Your task to perform on an android device: Go to Wikipedia Image 0: 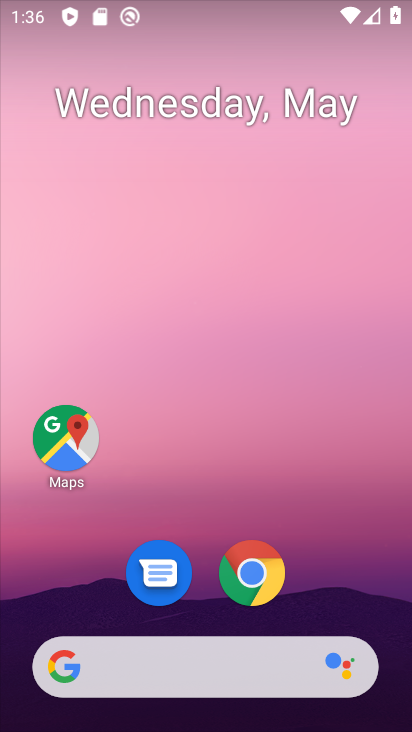
Step 0: click (248, 586)
Your task to perform on an android device: Go to Wikipedia Image 1: 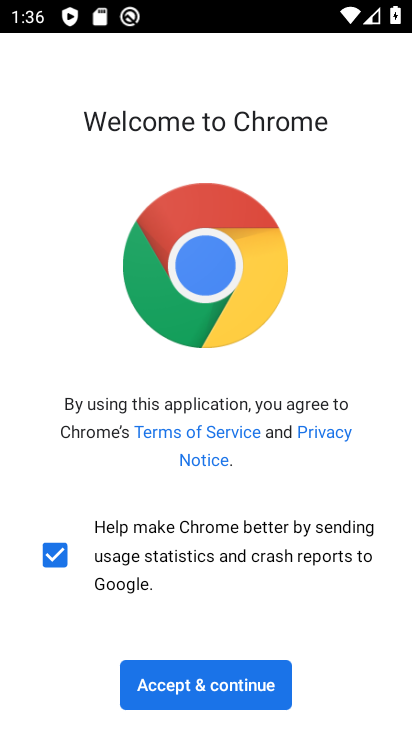
Step 1: click (227, 693)
Your task to perform on an android device: Go to Wikipedia Image 2: 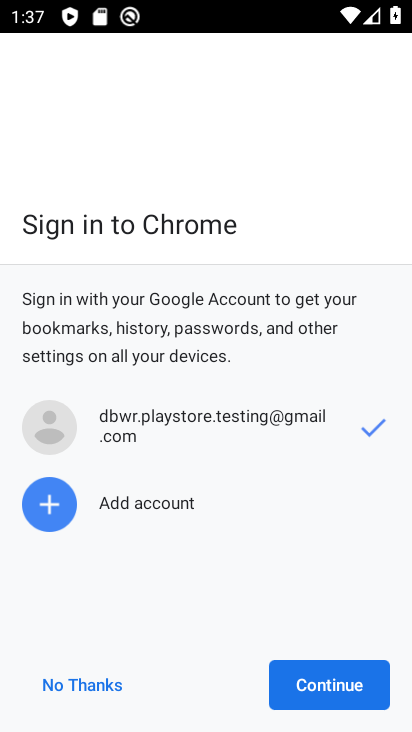
Step 2: click (338, 687)
Your task to perform on an android device: Go to Wikipedia Image 3: 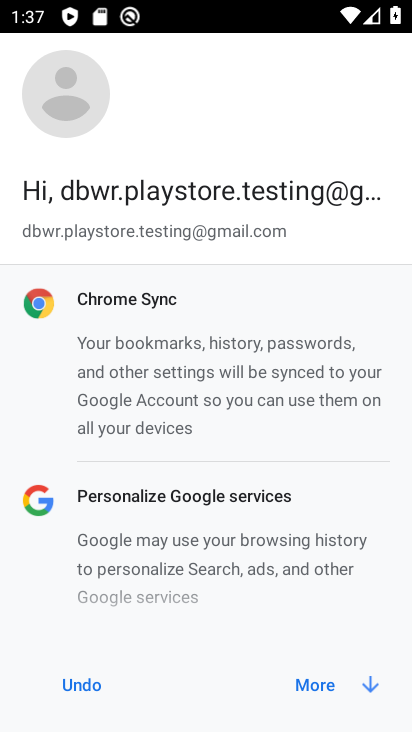
Step 3: click (338, 687)
Your task to perform on an android device: Go to Wikipedia Image 4: 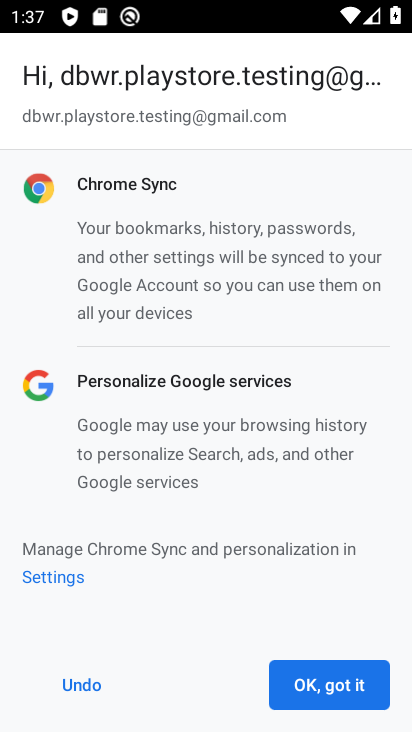
Step 4: click (338, 687)
Your task to perform on an android device: Go to Wikipedia Image 5: 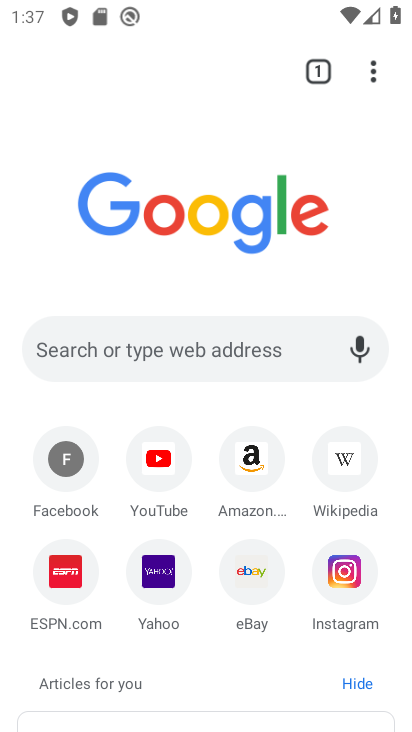
Step 5: click (343, 461)
Your task to perform on an android device: Go to Wikipedia Image 6: 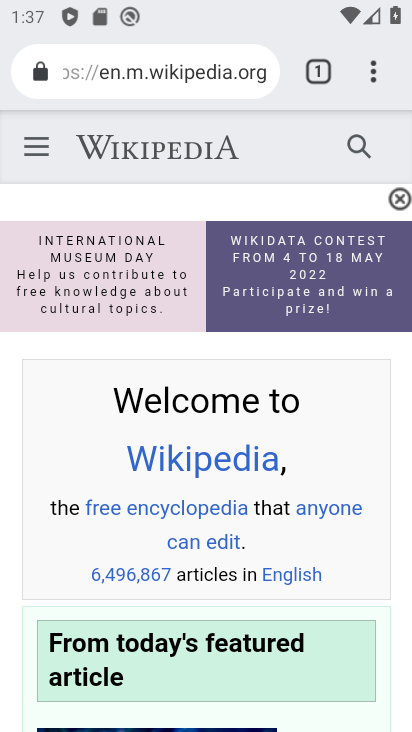
Step 6: task complete